Your task to perform on an android device: install app "Life360: Find Family & Friends" Image 0: 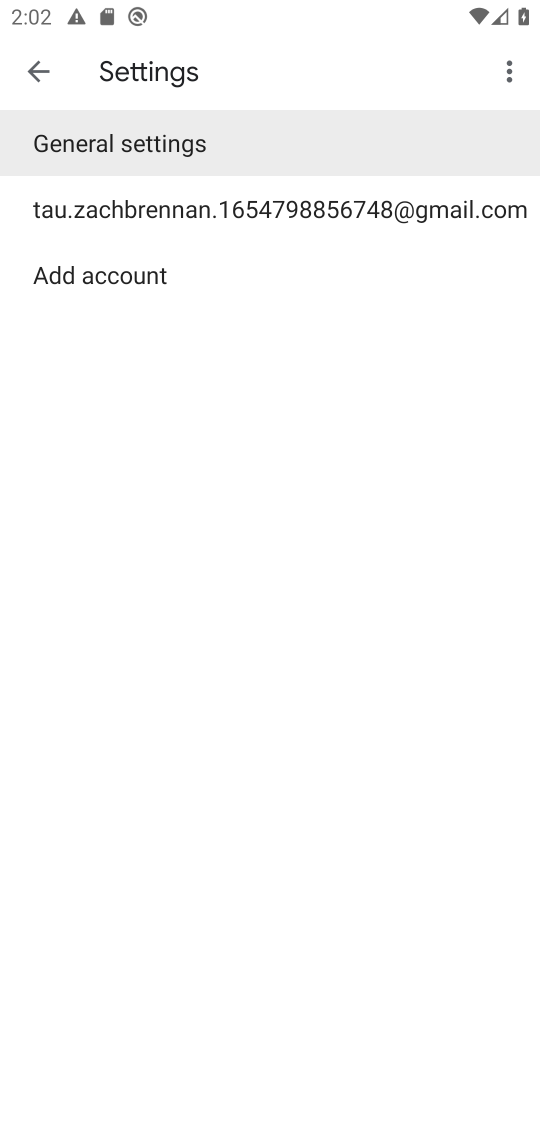
Step 0: press home button
Your task to perform on an android device: install app "Life360: Find Family & Friends" Image 1: 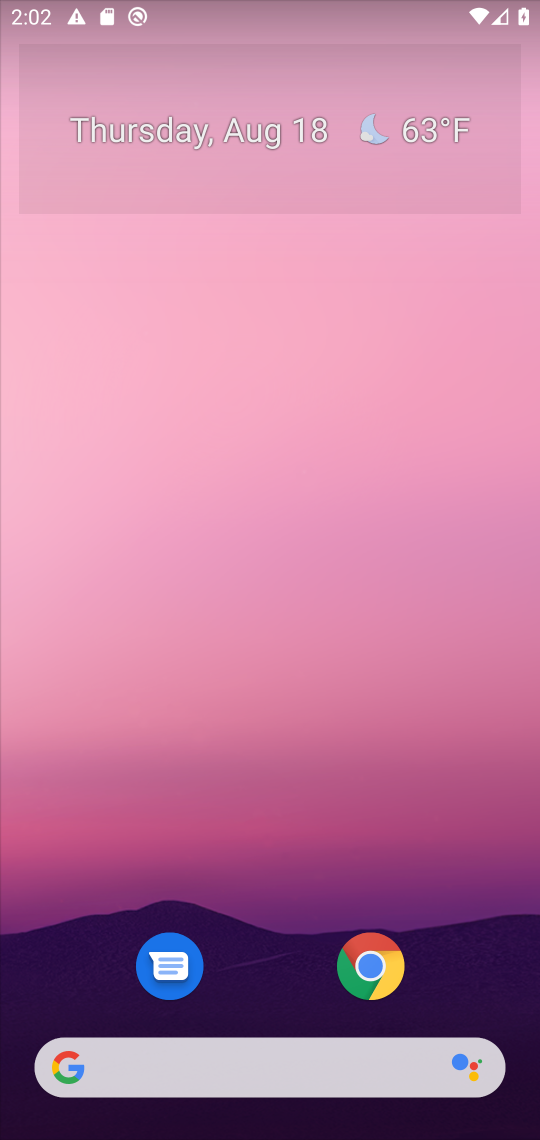
Step 1: drag from (274, 1011) to (314, 209)
Your task to perform on an android device: install app "Life360: Find Family & Friends" Image 2: 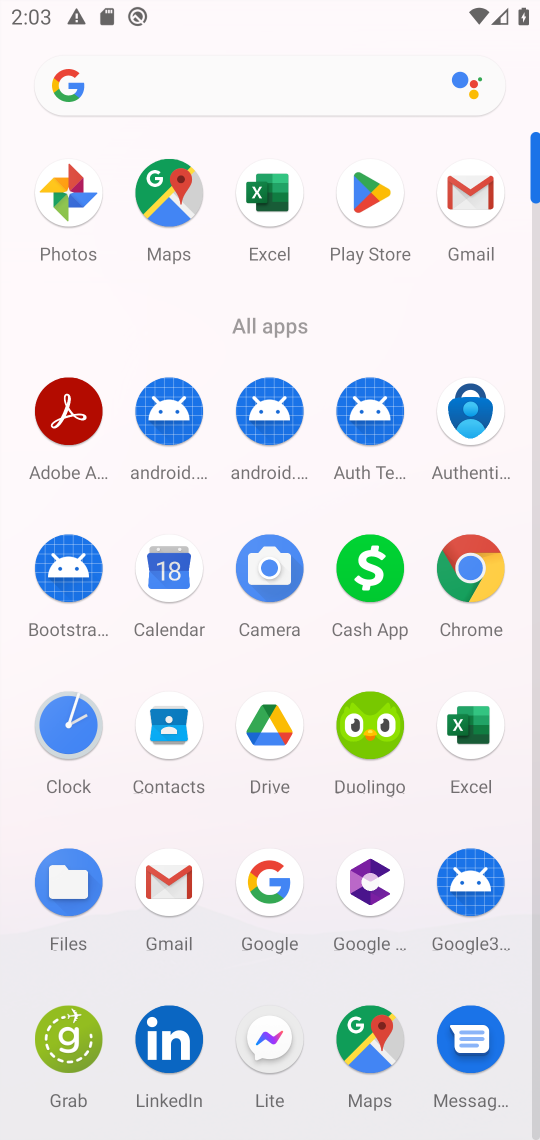
Step 2: click (366, 179)
Your task to perform on an android device: install app "Life360: Find Family & Friends" Image 3: 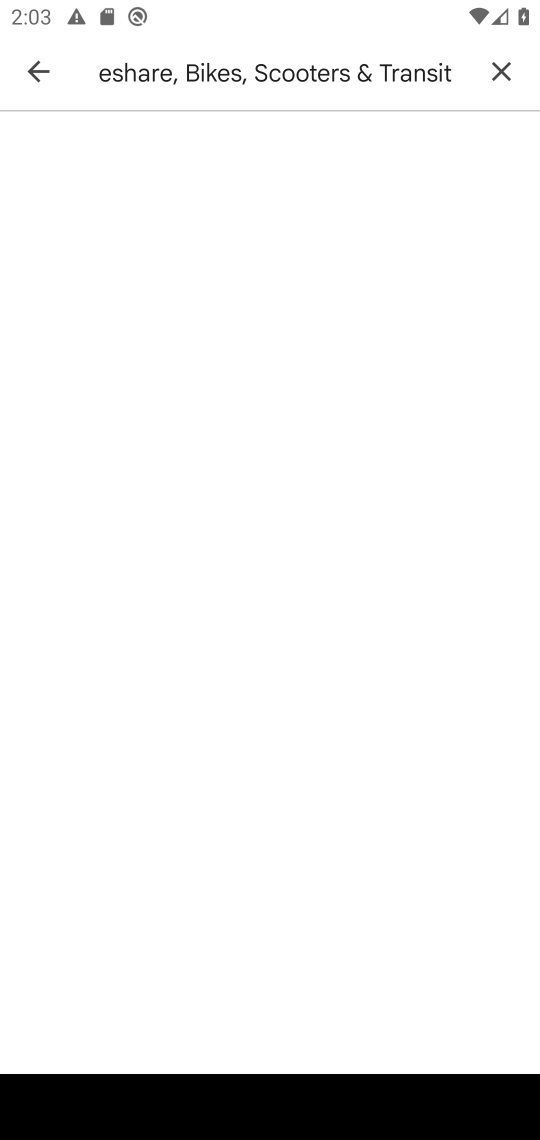
Step 3: click (502, 78)
Your task to perform on an android device: install app "Life360: Find Family & Friends" Image 4: 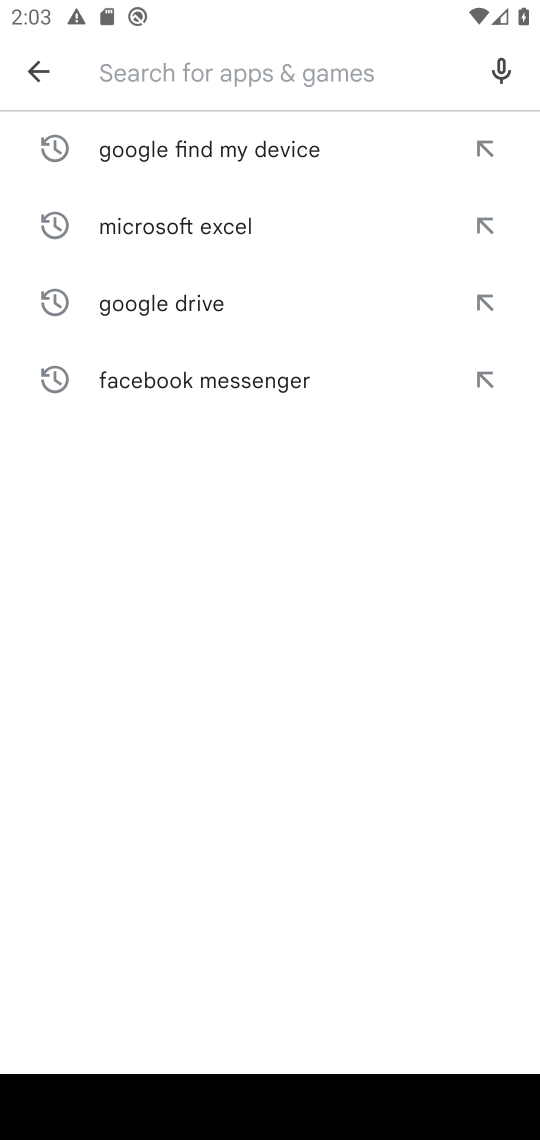
Step 4: click (221, 79)
Your task to perform on an android device: install app "Life360: Find Family & Friends" Image 5: 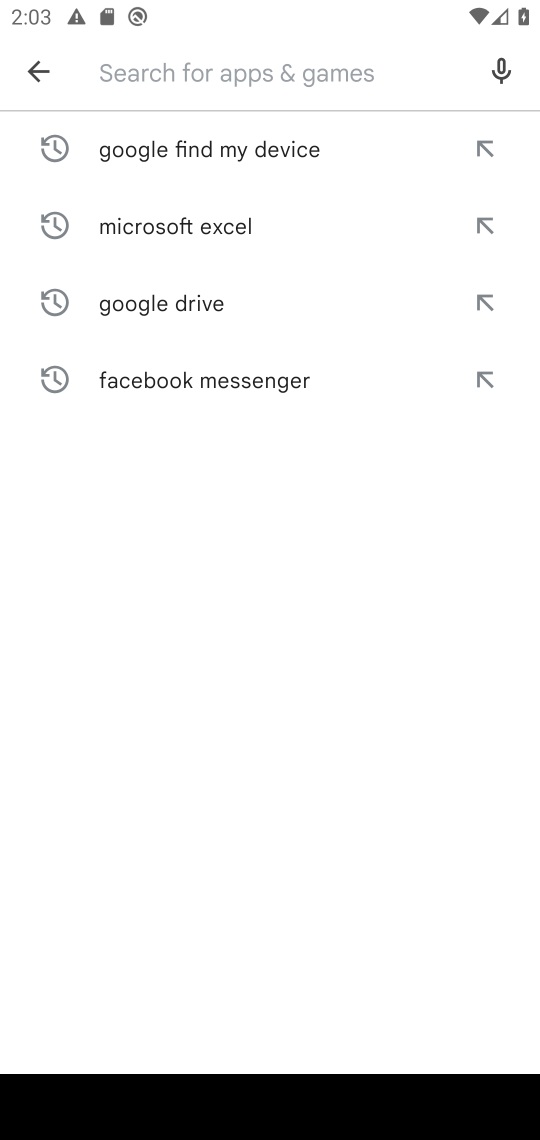
Step 5: type "Life360: Find Family & Friends"
Your task to perform on an android device: install app "Life360: Find Family & Friends" Image 6: 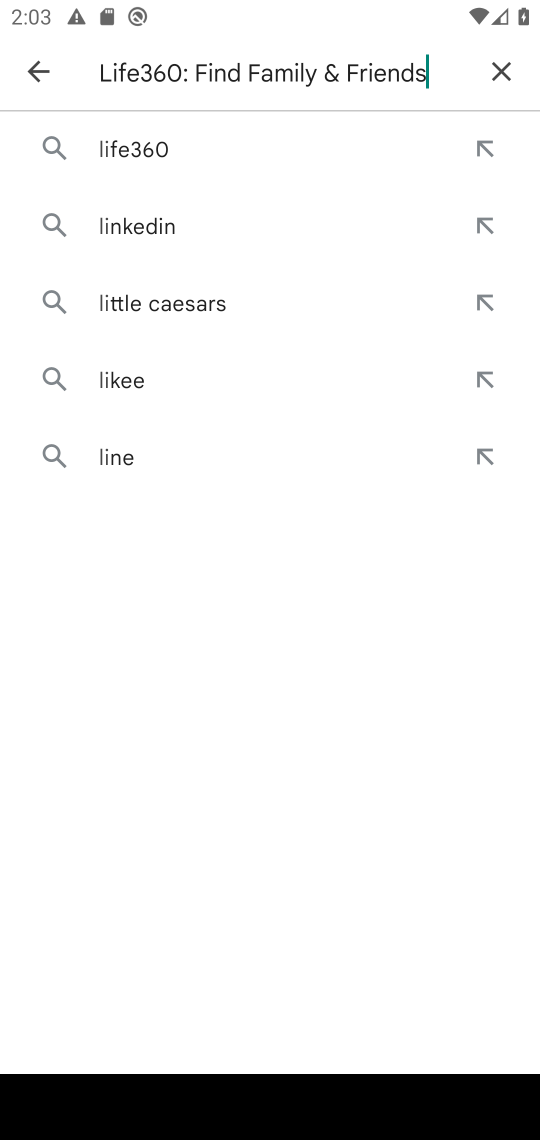
Step 6: type ""
Your task to perform on an android device: install app "Life360: Find Family & Friends" Image 7: 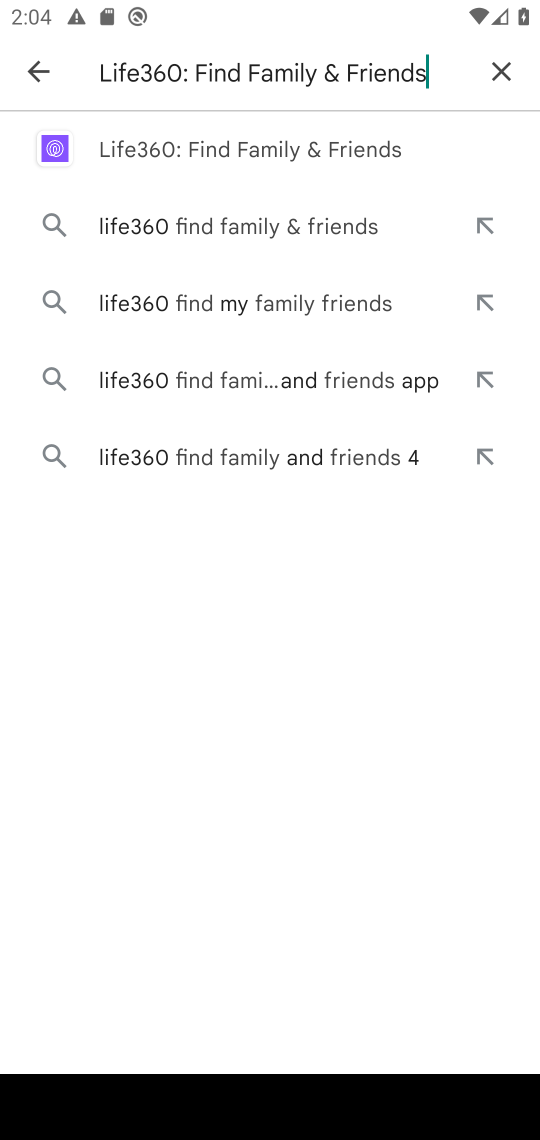
Step 7: click (227, 147)
Your task to perform on an android device: install app "Life360: Find Family & Friends" Image 8: 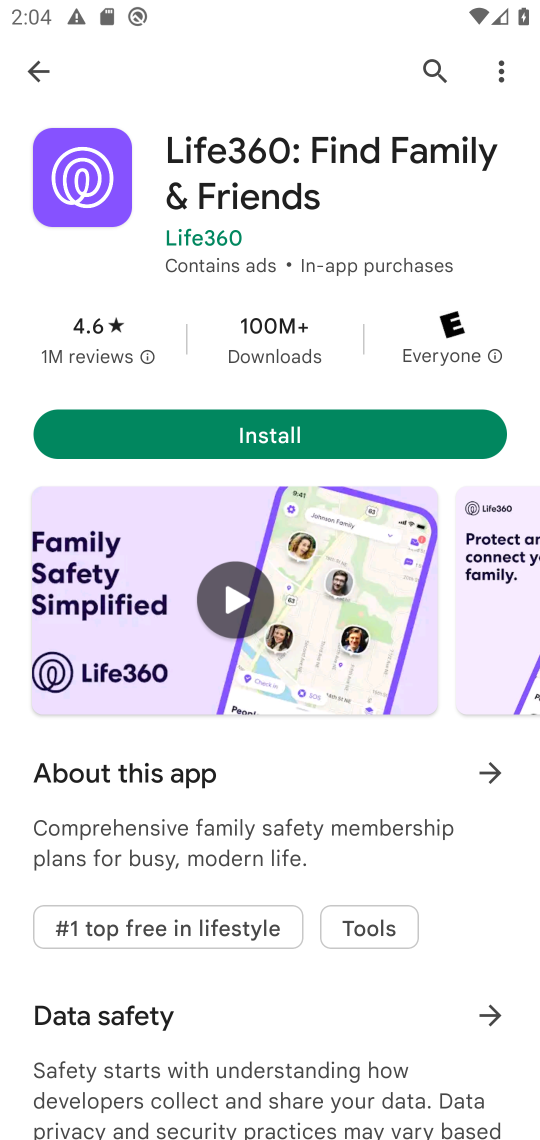
Step 8: click (281, 429)
Your task to perform on an android device: install app "Life360: Find Family & Friends" Image 9: 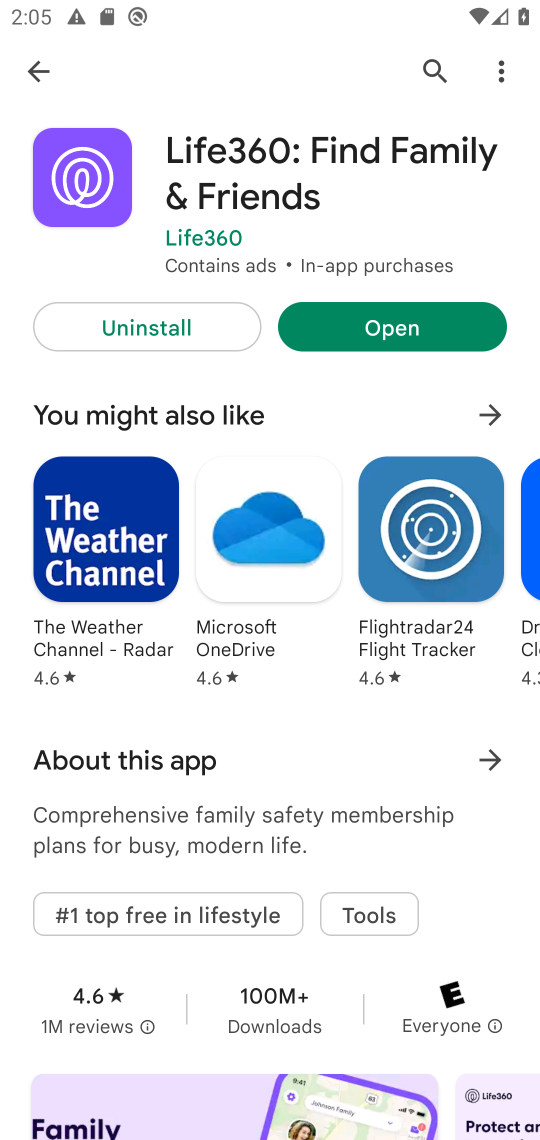
Step 9: click (375, 332)
Your task to perform on an android device: install app "Life360: Find Family & Friends" Image 10: 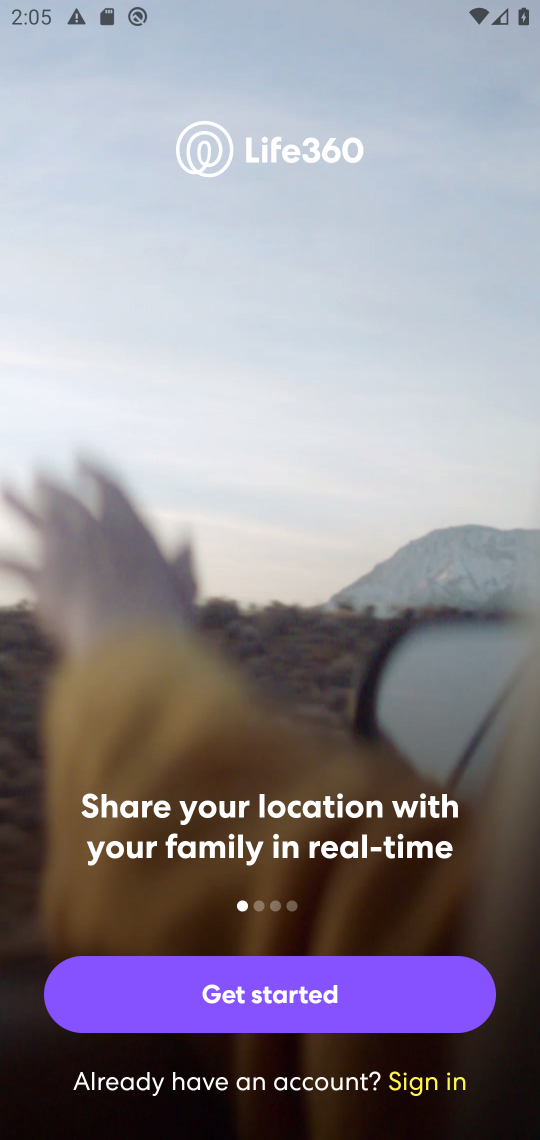
Step 10: click (277, 997)
Your task to perform on an android device: install app "Life360: Find Family & Friends" Image 11: 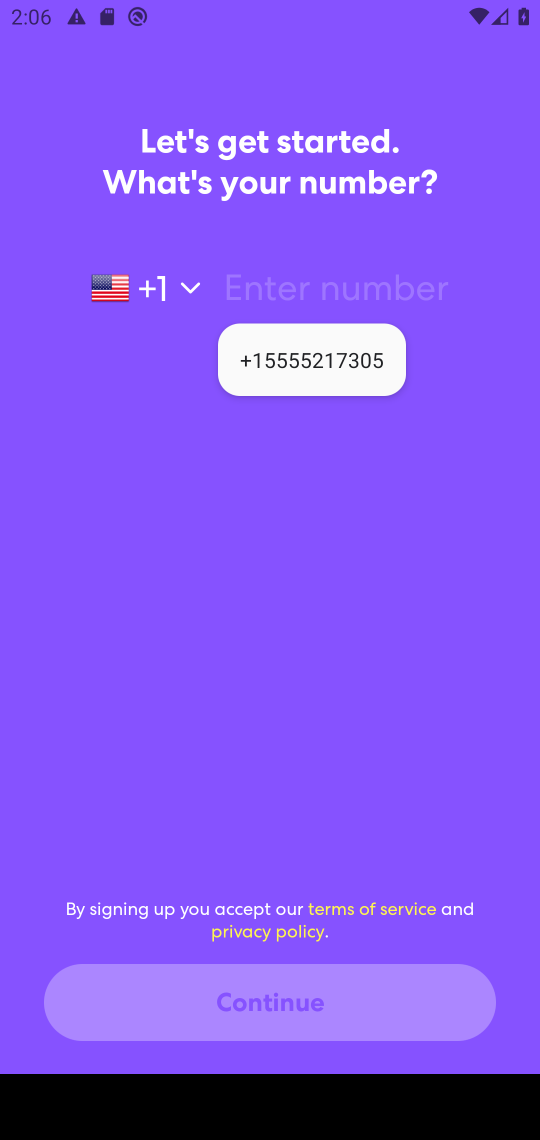
Step 11: task complete